Your task to perform on an android device: turn off airplane mode Image 0: 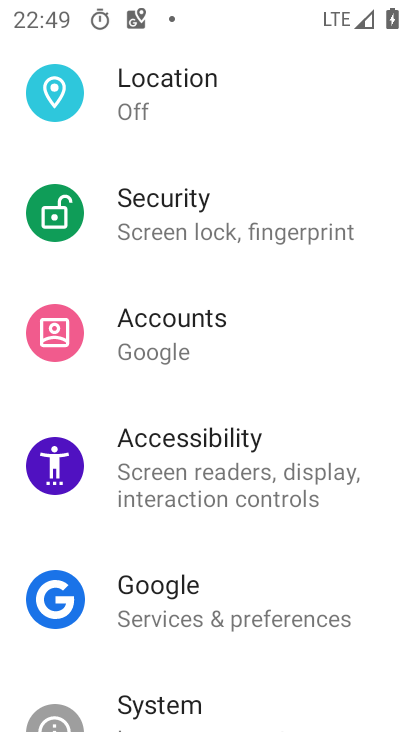
Step 0: drag from (337, 195) to (321, 356)
Your task to perform on an android device: turn off airplane mode Image 1: 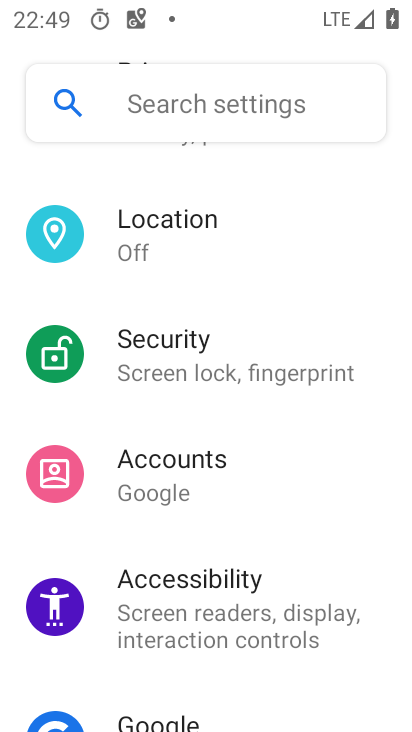
Step 1: drag from (302, 244) to (242, 478)
Your task to perform on an android device: turn off airplane mode Image 2: 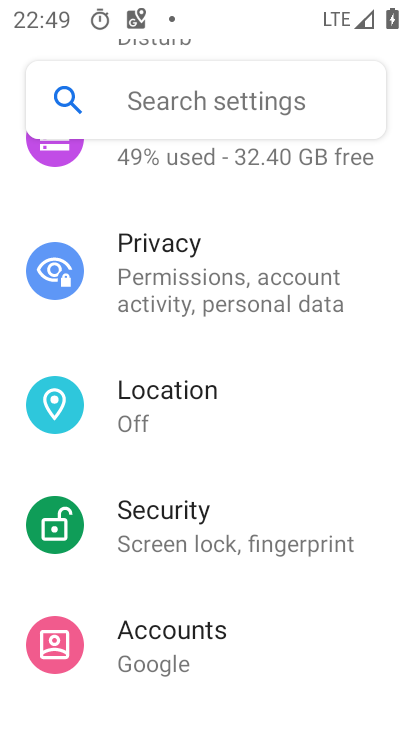
Step 2: drag from (238, 232) to (232, 419)
Your task to perform on an android device: turn off airplane mode Image 3: 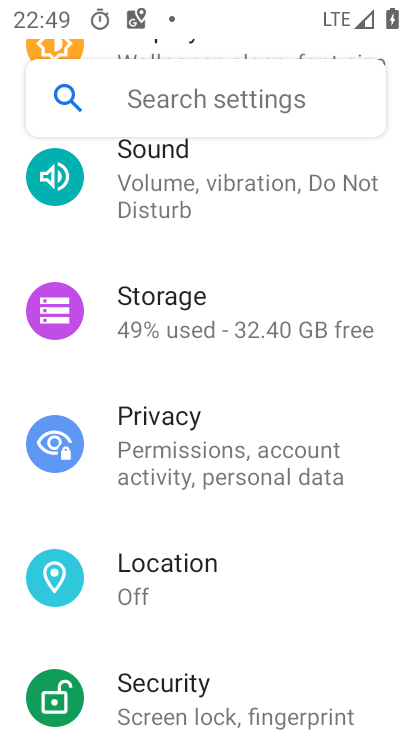
Step 3: drag from (242, 157) to (227, 397)
Your task to perform on an android device: turn off airplane mode Image 4: 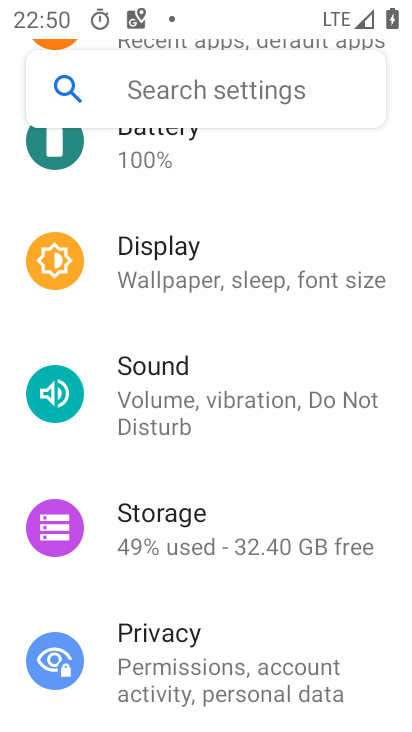
Step 4: drag from (240, 189) to (204, 502)
Your task to perform on an android device: turn off airplane mode Image 5: 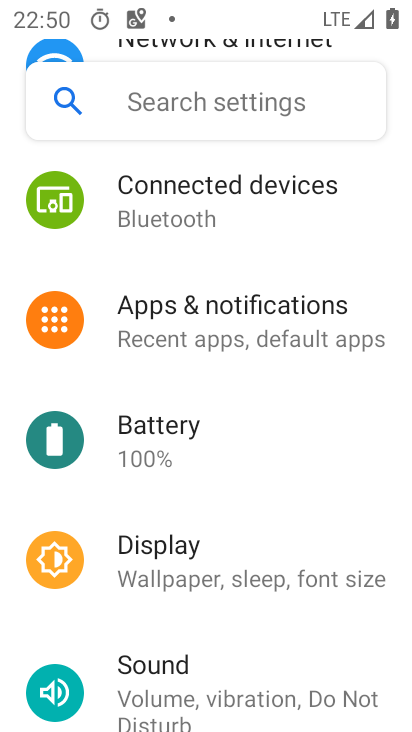
Step 5: drag from (240, 213) to (211, 505)
Your task to perform on an android device: turn off airplane mode Image 6: 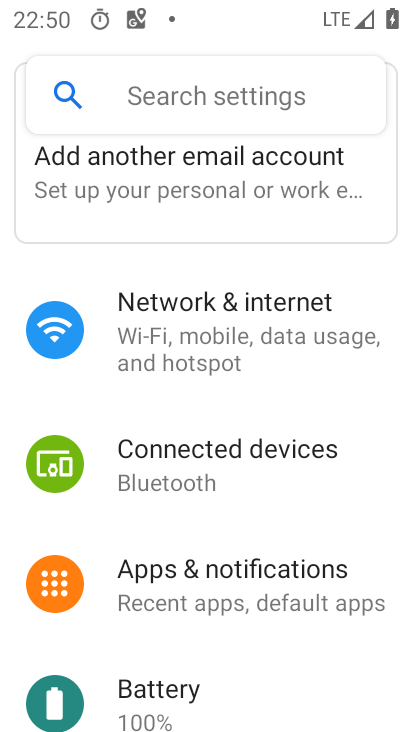
Step 6: click (217, 344)
Your task to perform on an android device: turn off airplane mode Image 7: 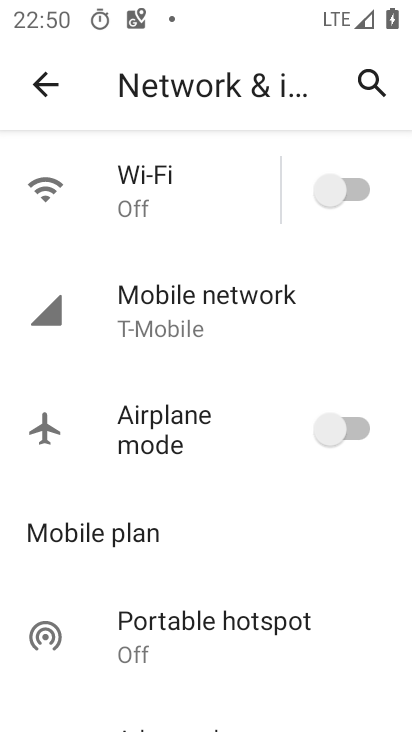
Step 7: task complete